Your task to perform on an android device: toggle improve location accuracy Image 0: 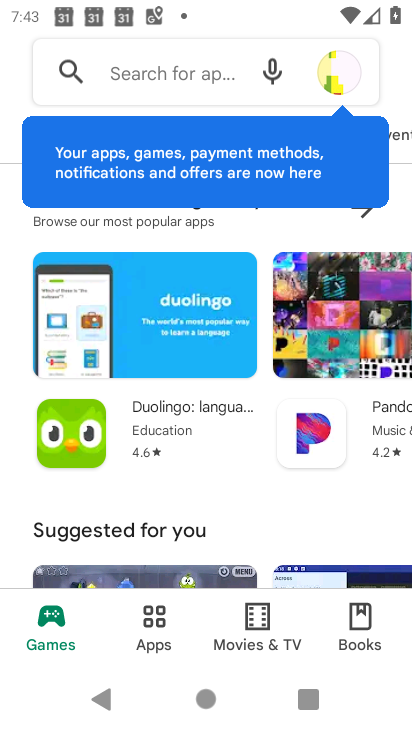
Step 0: press home button
Your task to perform on an android device: toggle improve location accuracy Image 1: 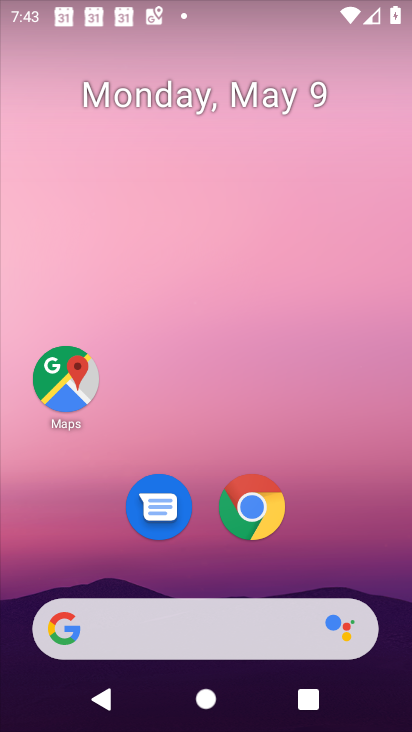
Step 1: drag from (296, 661) to (228, 169)
Your task to perform on an android device: toggle improve location accuracy Image 2: 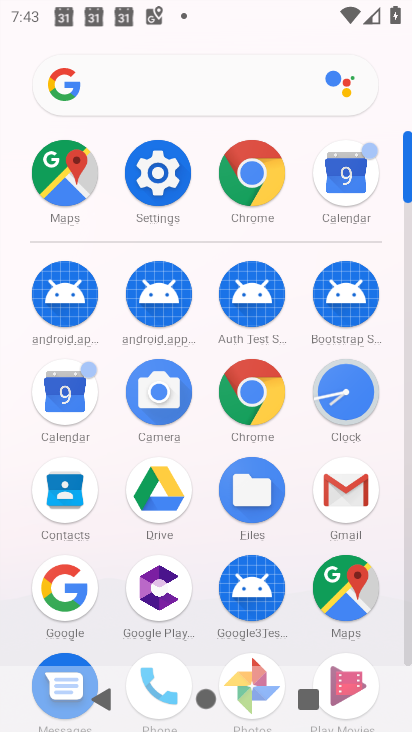
Step 2: click (166, 170)
Your task to perform on an android device: toggle improve location accuracy Image 3: 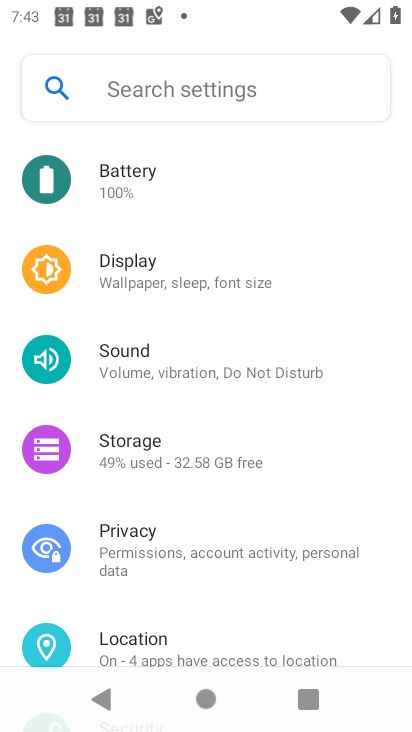
Step 3: click (173, 92)
Your task to perform on an android device: toggle improve location accuracy Image 4: 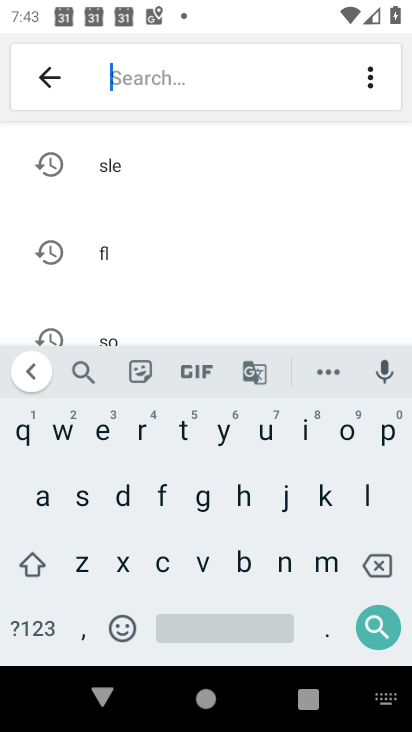
Step 4: click (44, 85)
Your task to perform on an android device: toggle improve location accuracy Image 5: 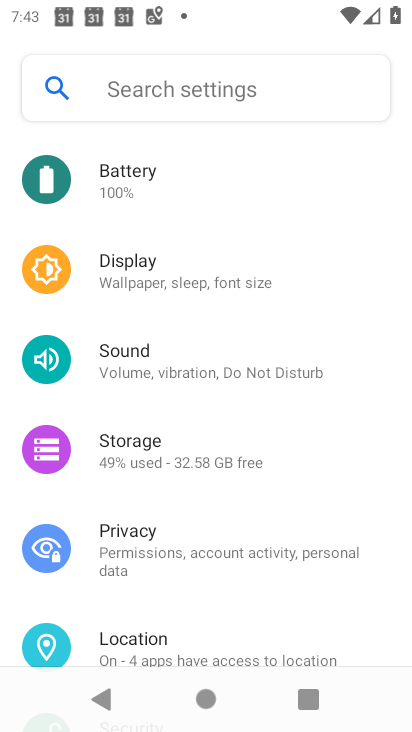
Step 5: click (130, 639)
Your task to perform on an android device: toggle improve location accuracy Image 6: 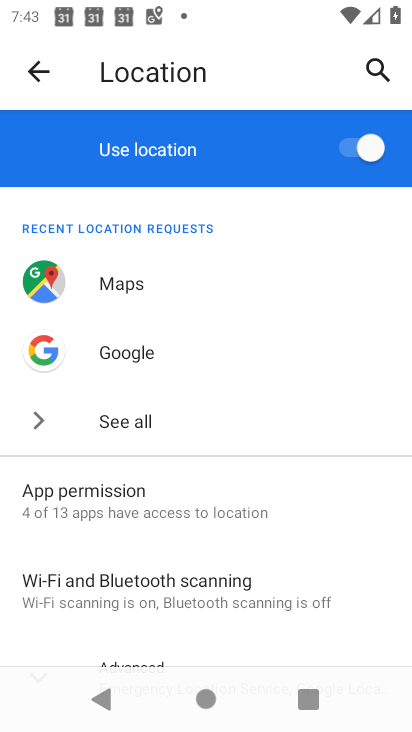
Step 6: drag from (152, 570) to (165, 433)
Your task to perform on an android device: toggle improve location accuracy Image 7: 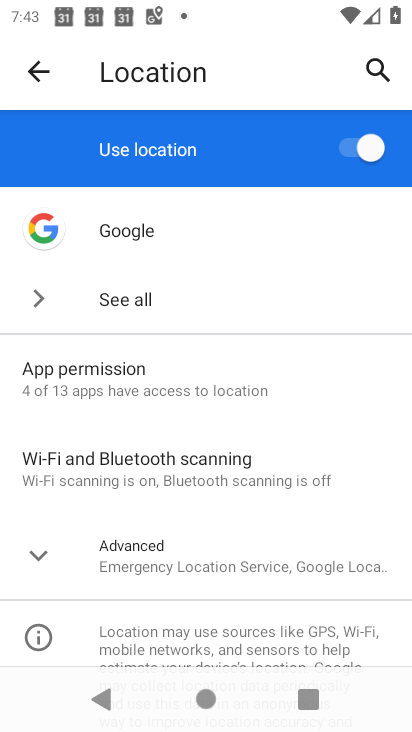
Step 7: click (55, 543)
Your task to perform on an android device: toggle improve location accuracy Image 8: 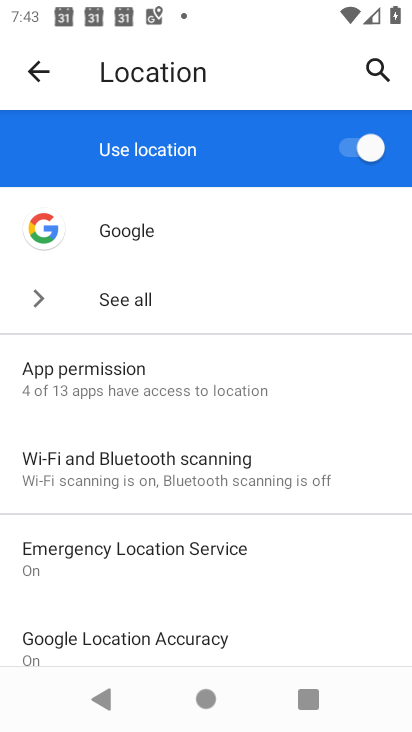
Step 8: click (183, 632)
Your task to perform on an android device: toggle improve location accuracy Image 9: 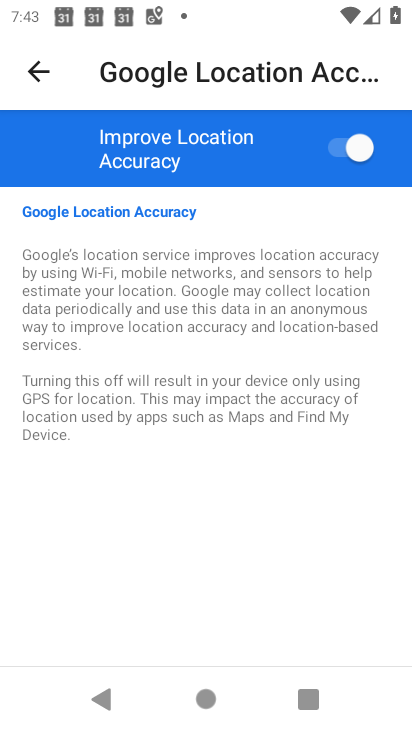
Step 9: task complete